Your task to perform on an android device: delete a single message in the gmail app Image 0: 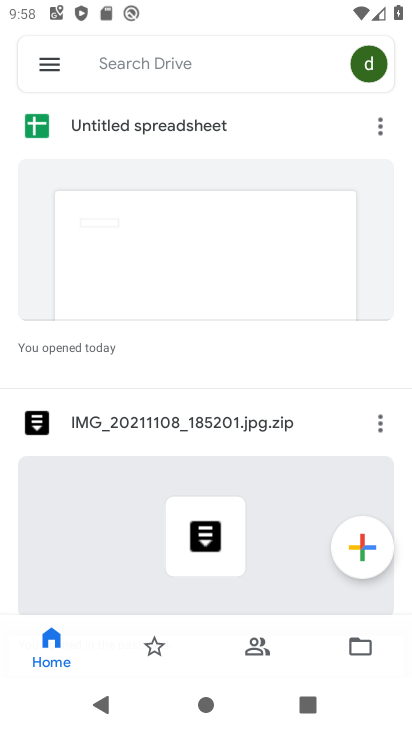
Step 0: press home button
Your task to perform on an android device: delete a single message in the gmail app Image 1: 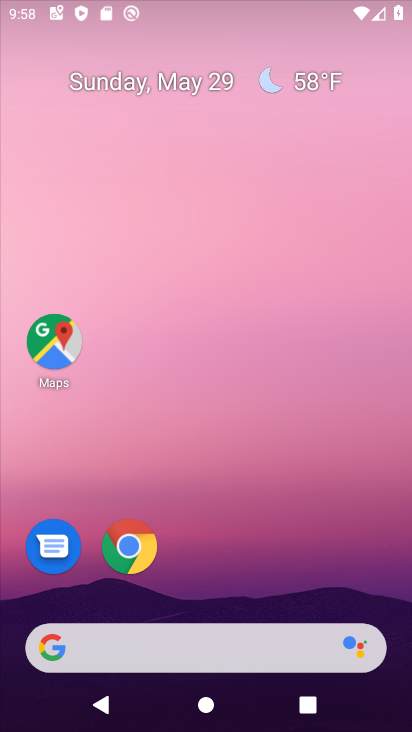
Step 1: drag from (289, 539) to (273, 2)
Your task to perform on an android device: delete a single message in the gmail app Image 2: 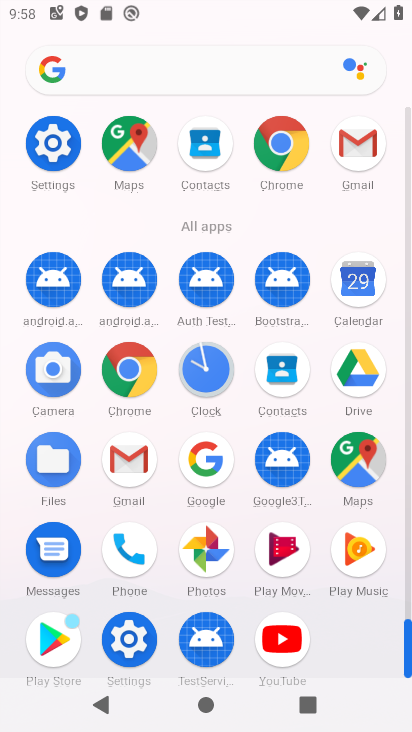
Step 2: click (146, 465)
Your task to perform on an android device: delete a single message in the gmail app Image 3: 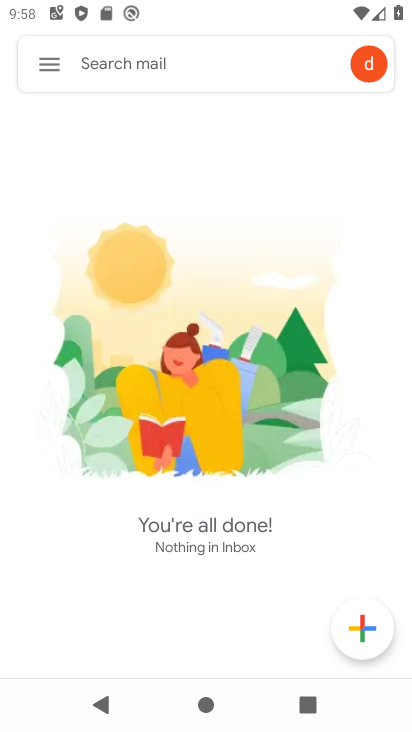
Step 3: click (51, 66)
Your task to perform on an android device: delete a single message in the gmail app Image 4: 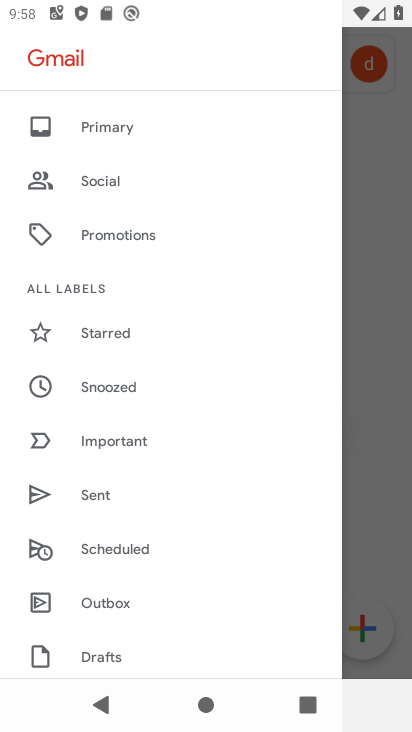
Step 4: drag from (215, 555) to (189, 308)
Your task to perform on an android device: delete a single message in the gmail app Image 5: 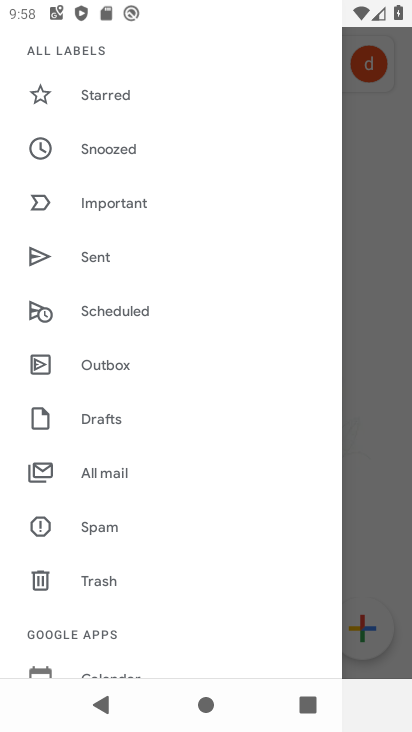
Step 5: click (168, 463)
Your task to perform on an android device: delete a single message in the gmail app Image 6: 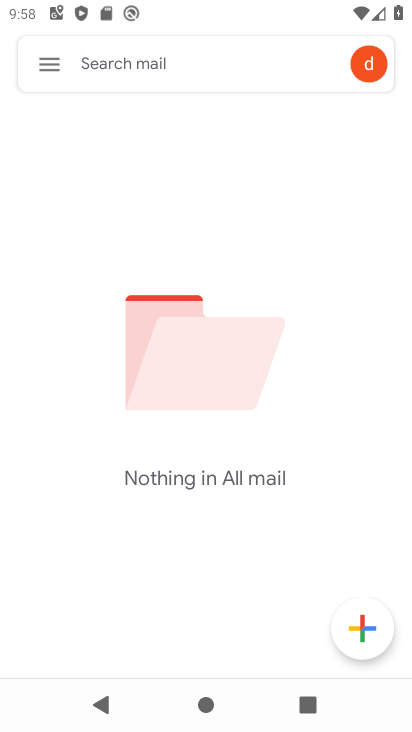
Step 6: task complete